Your task to perform on an android device: see sites visited before in the chrome app Image 0: 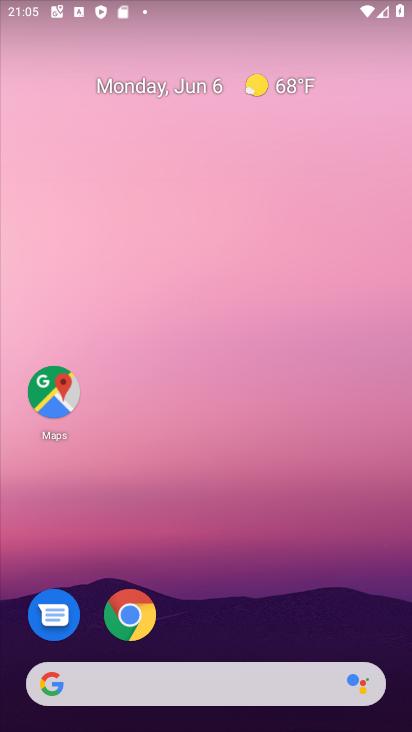
Step 0: click (138, 602)
Your task to perform on an android device: see sites visited before in the chrome app Image 1: 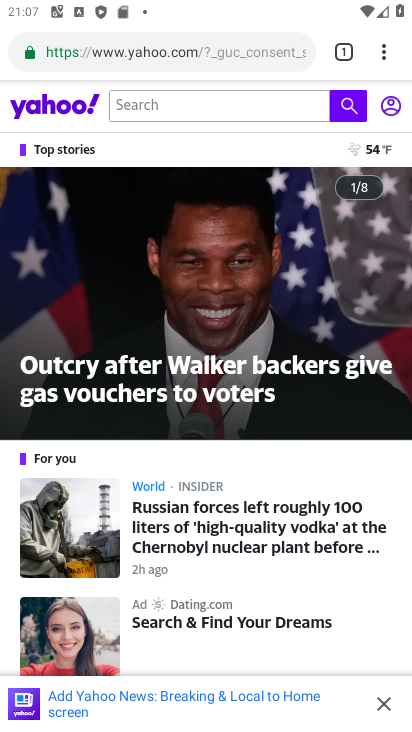
Step 1: click (383, 50)
Your task to perform on an android device: see sites visited before in the chrome app Image 2: 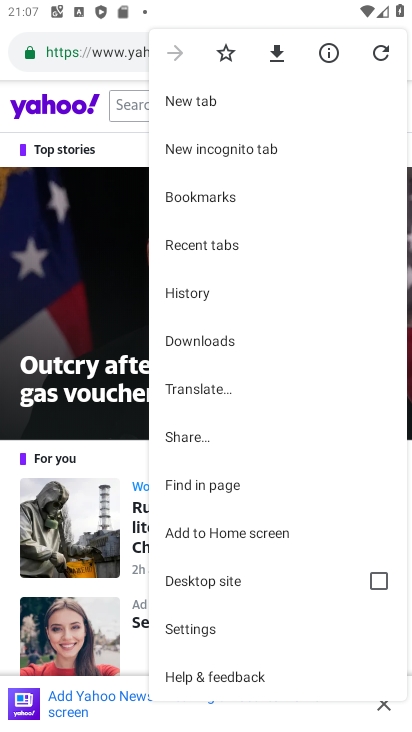
Step 2: click (198, 239)
Your task to perform on an android device: see sites visited before in the chrome app Image 3: 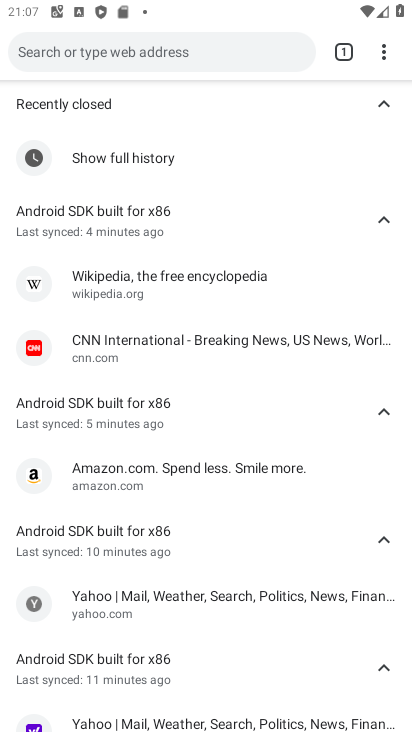
Step 3: task complete